Your task to perform on an android device: Open the phone app and click the voicemail tab. Image 0: 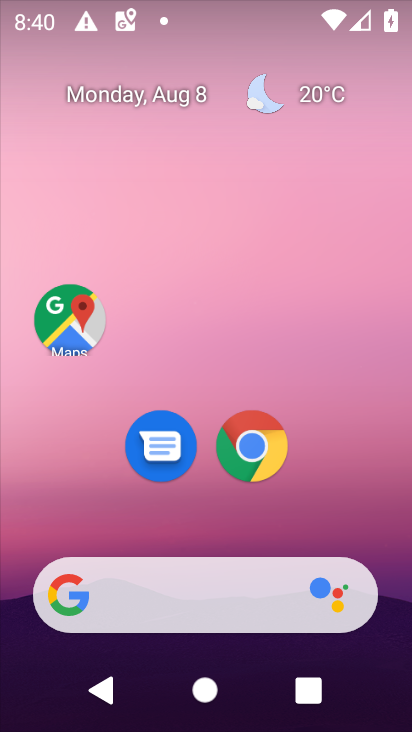
Step 0: drag from (392, 552) to (330, 168)
Your task to perform on an android device: Open the phone app and click the voicemail tab. Image 1: 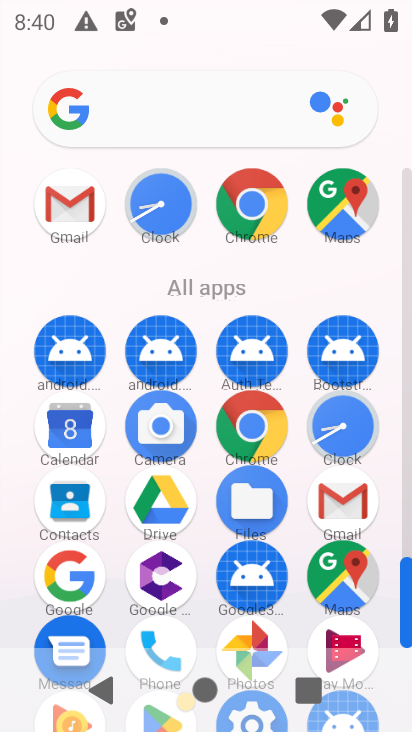
Step 1: click (162, 638)
Your task to perform on an android device: Open the phone app and click the voicemail tab. Image 2: 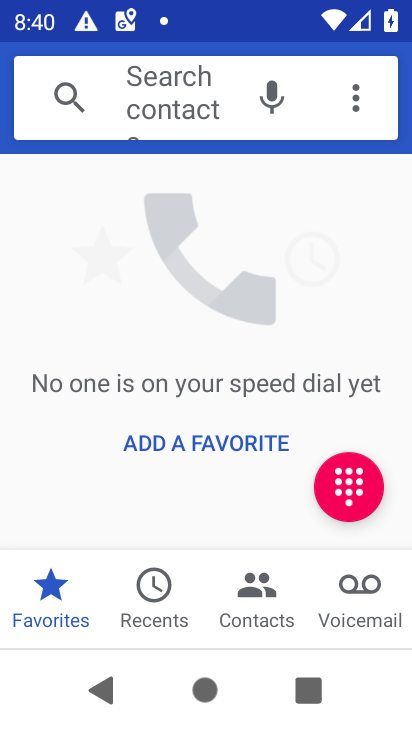
Step 2: click (366, 596)
Your task to perform on an android device: Open the phone app and click the voicemail tab. Image 3: 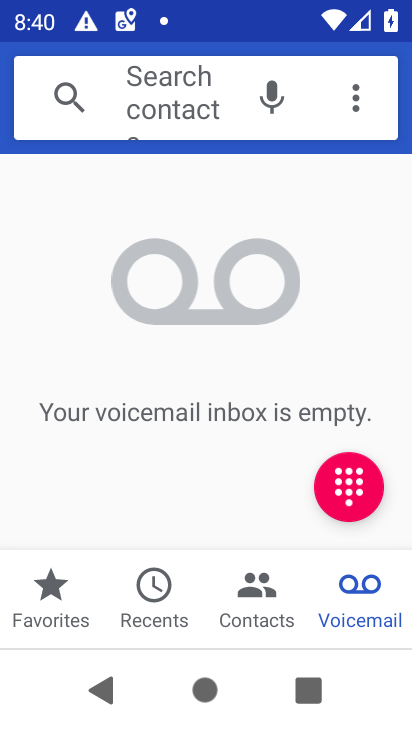
Step 3: click (366, 596)
Your task to perform on an android device: Open the phone app and click the voicemail tab. Image 4: 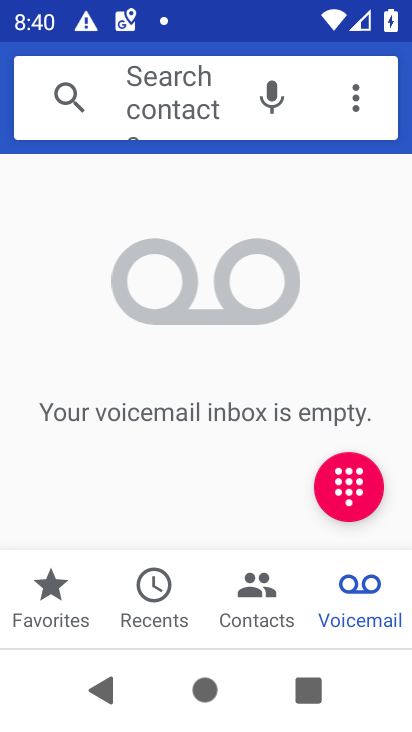
Step 4: task complete